Your task to perform on an android device: Go to accessibility settings Image 0: 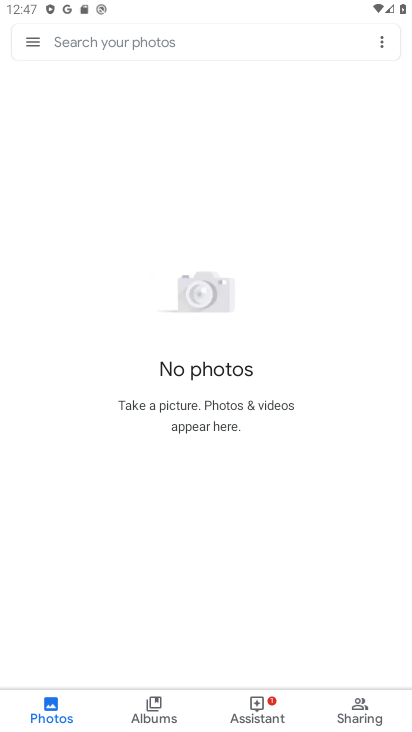
Step 0: press home button
Your task to perform on an android device: Go to accessibility settings Image 1: 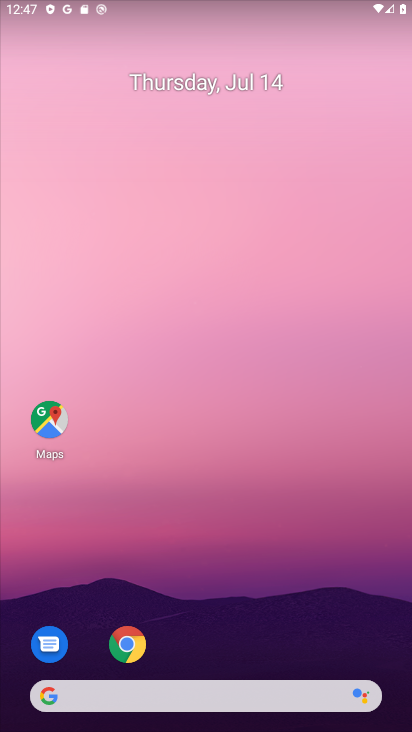
Step 1: drag from (183, 642) to (218, 237)
Your task to perform on an android device: Go to accessibility settings Image 2: 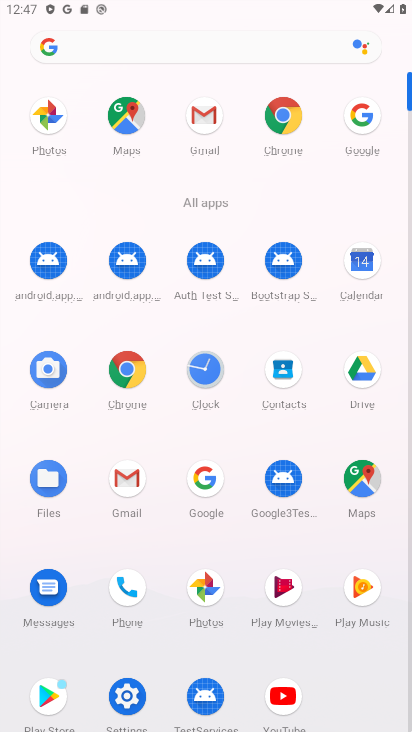
Step 2: click (130, 698)
Your task to perform on an android device: Go to accessibility settings Image 3: 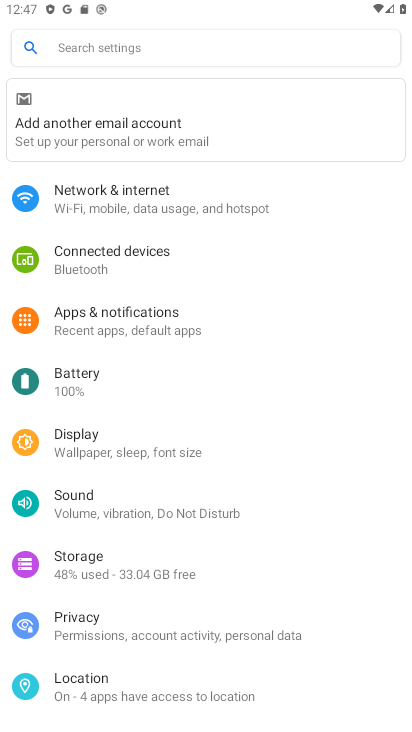
Step 3: drag from (71, 692) to (151, 392)
Your task to perform on an android device: Go to accessibility settings Image 4: 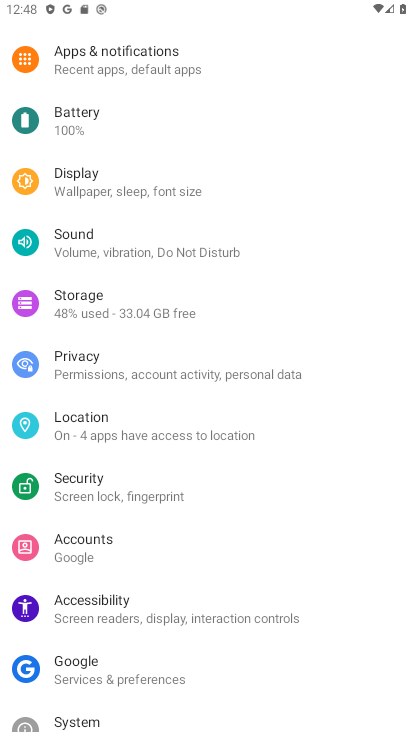
Step 4: click (132, 605)
Your task to perform on an android device: Go to accessibility settings Image 5: 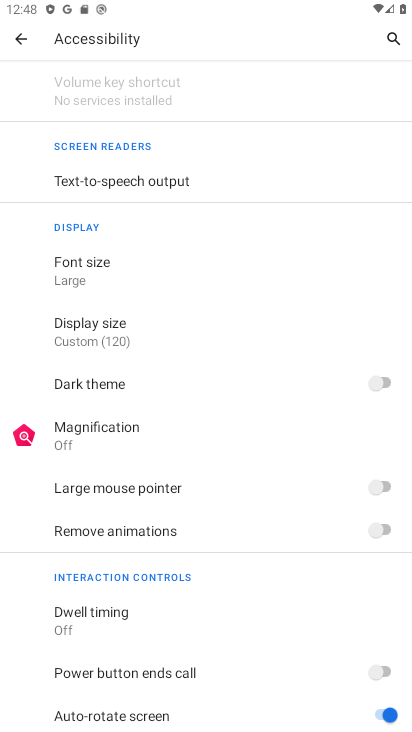
Step 5: task complete